Your task to perform on an android device: Add logitech g pro to the cart on newegg, then select checkout. Image 0: 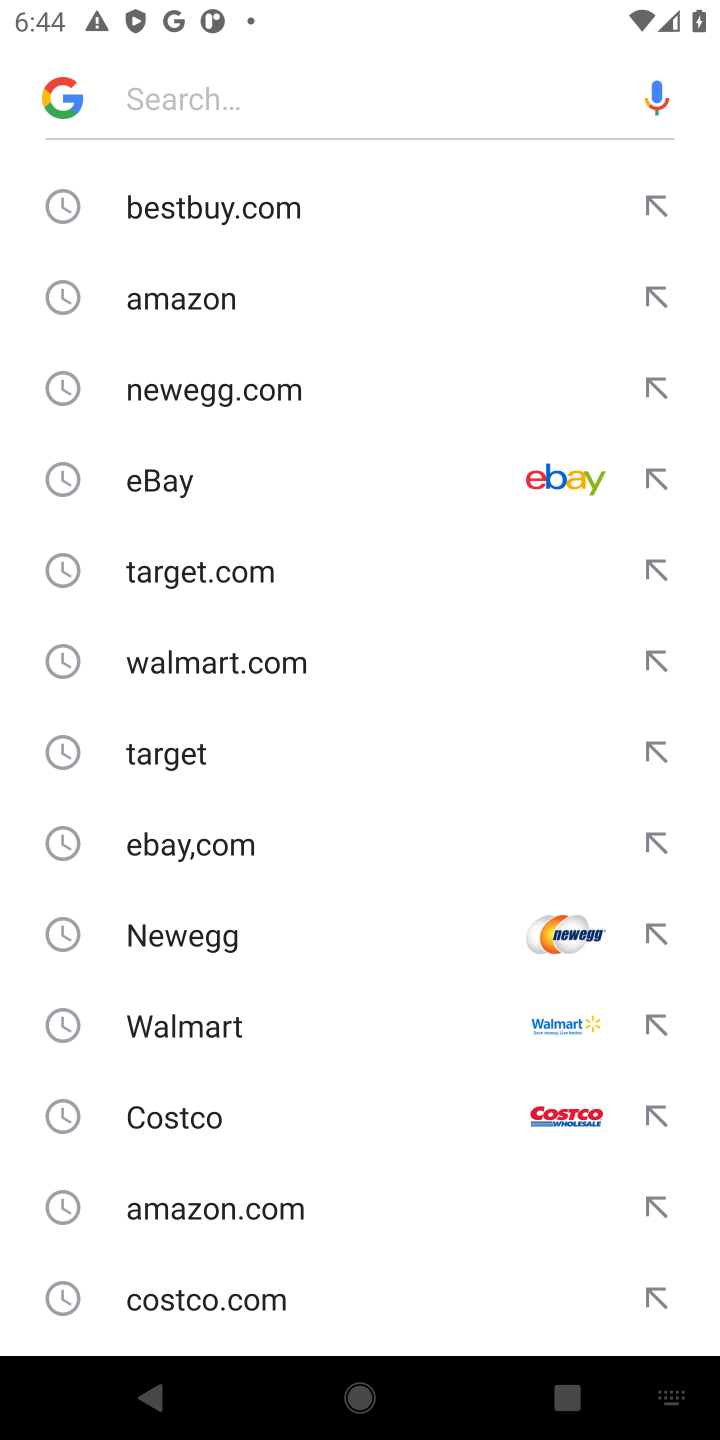
Step 0: click (311, 406)
Your task to perform on an android device: Add logitech g pro to the cart on newegg, then select checkout. Image 1: 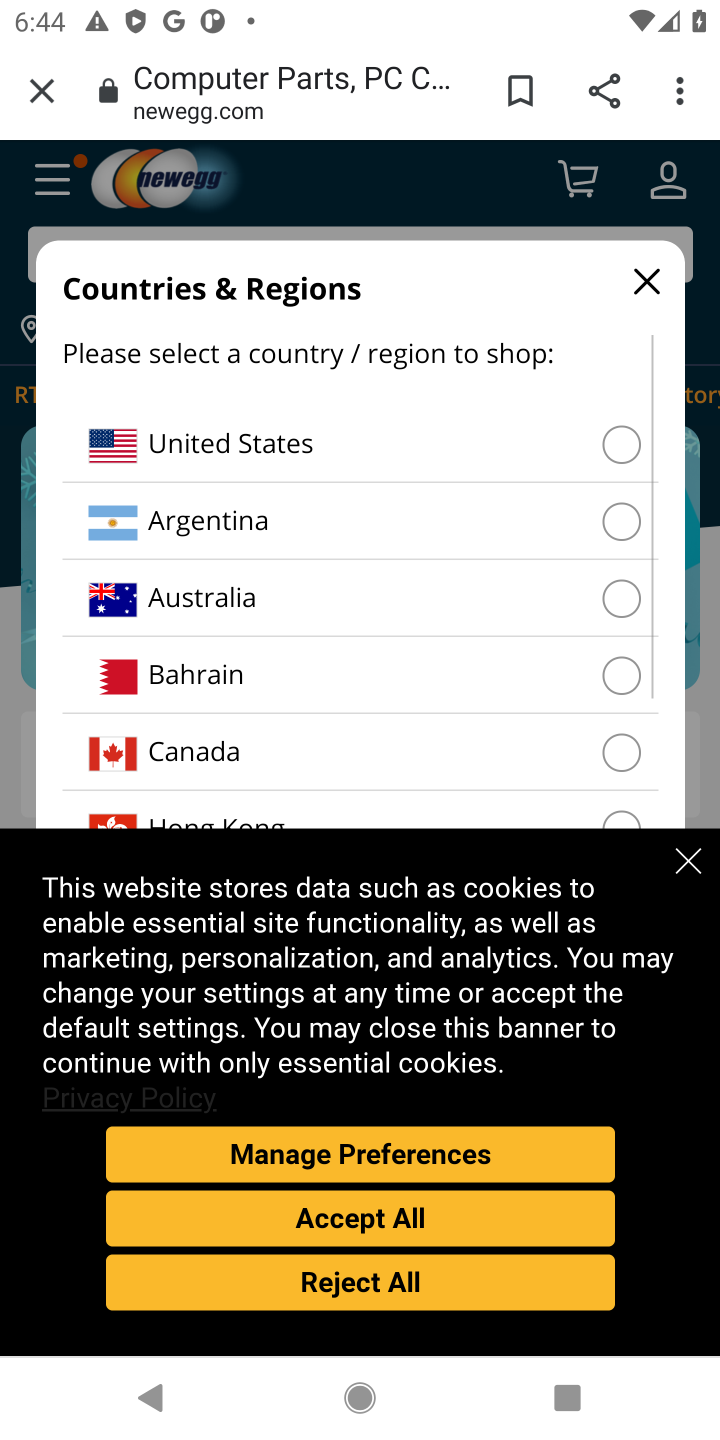
Step 1: click (294, 1219)
Your task to perform on an android device: Add logitech g pro to the cart on newegg, then select checkout. Image 2: 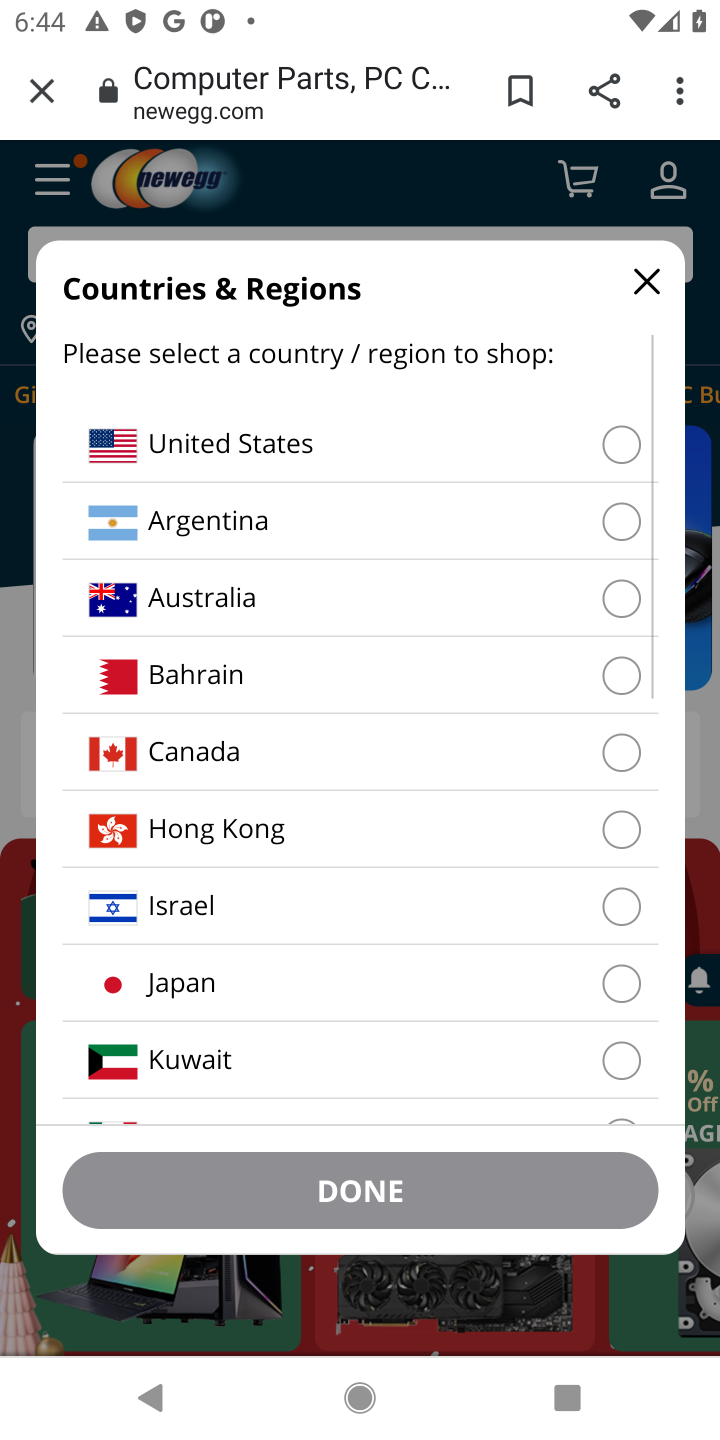
Step 2: click (630, 1047)
Your task to perform on an android device: Add logitech g pro to the cart on newegg, then select checkout. Image 3: 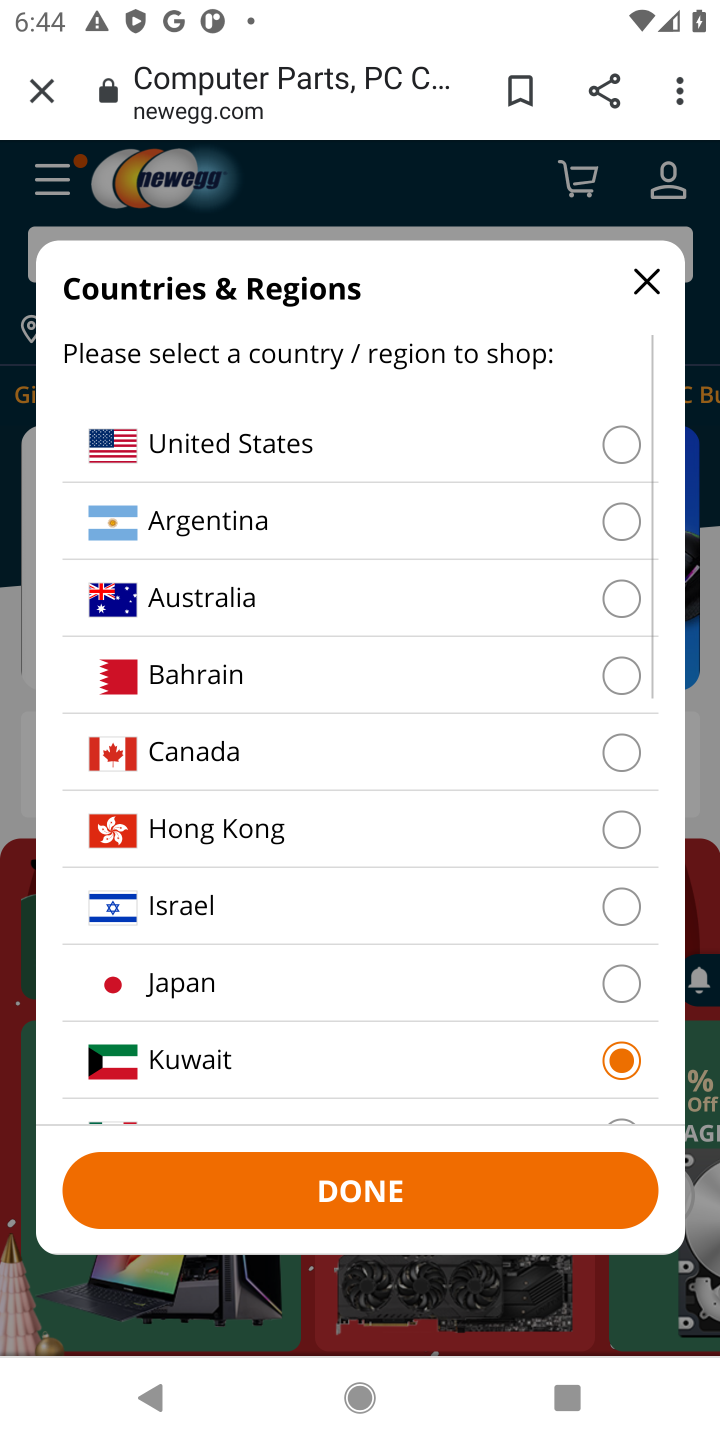
Step 3: click (508, 1169)
Your task to perform on an android device: Add logitech g pro to the cart on newegg, then select checkout. Image 4: 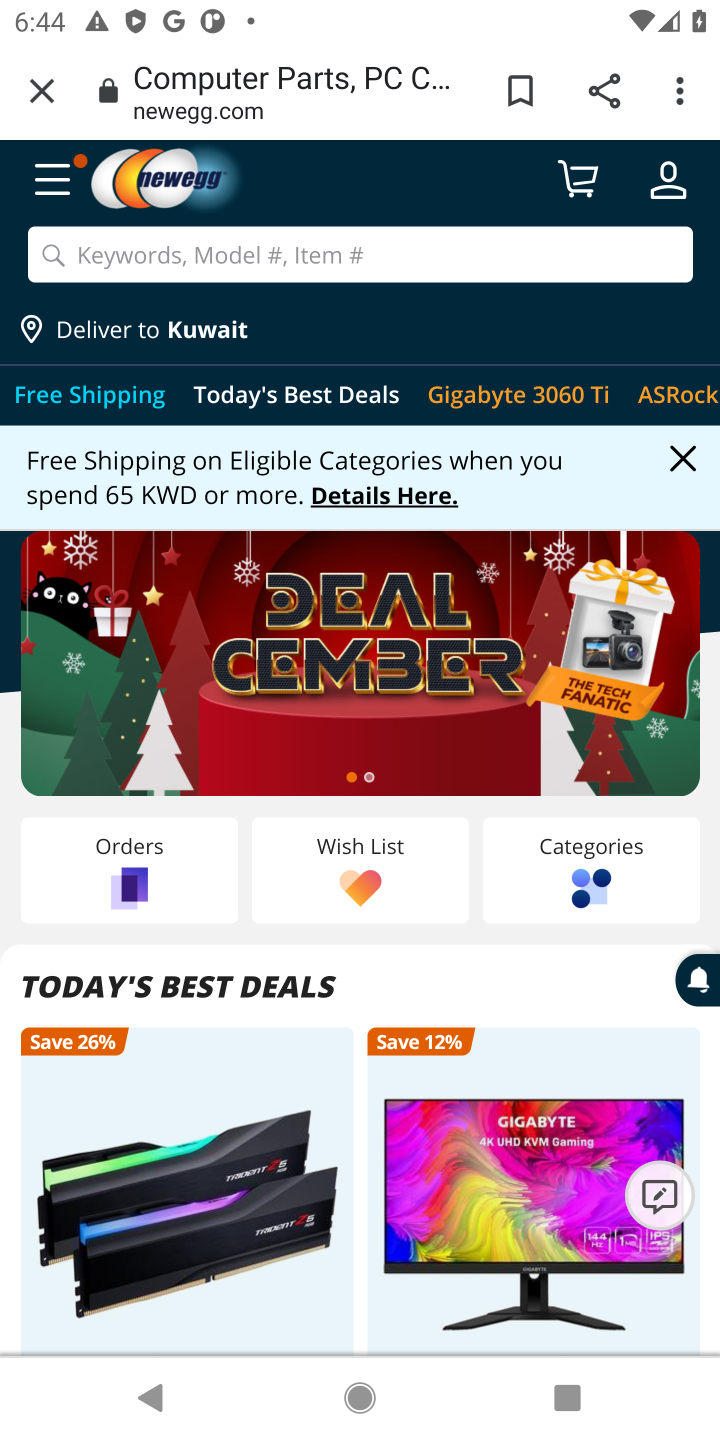
Step 4: click (331, 239)
Your task to perform on an android device: Add logitech g pro to the cart on newegg, then select checkout. Image 5: 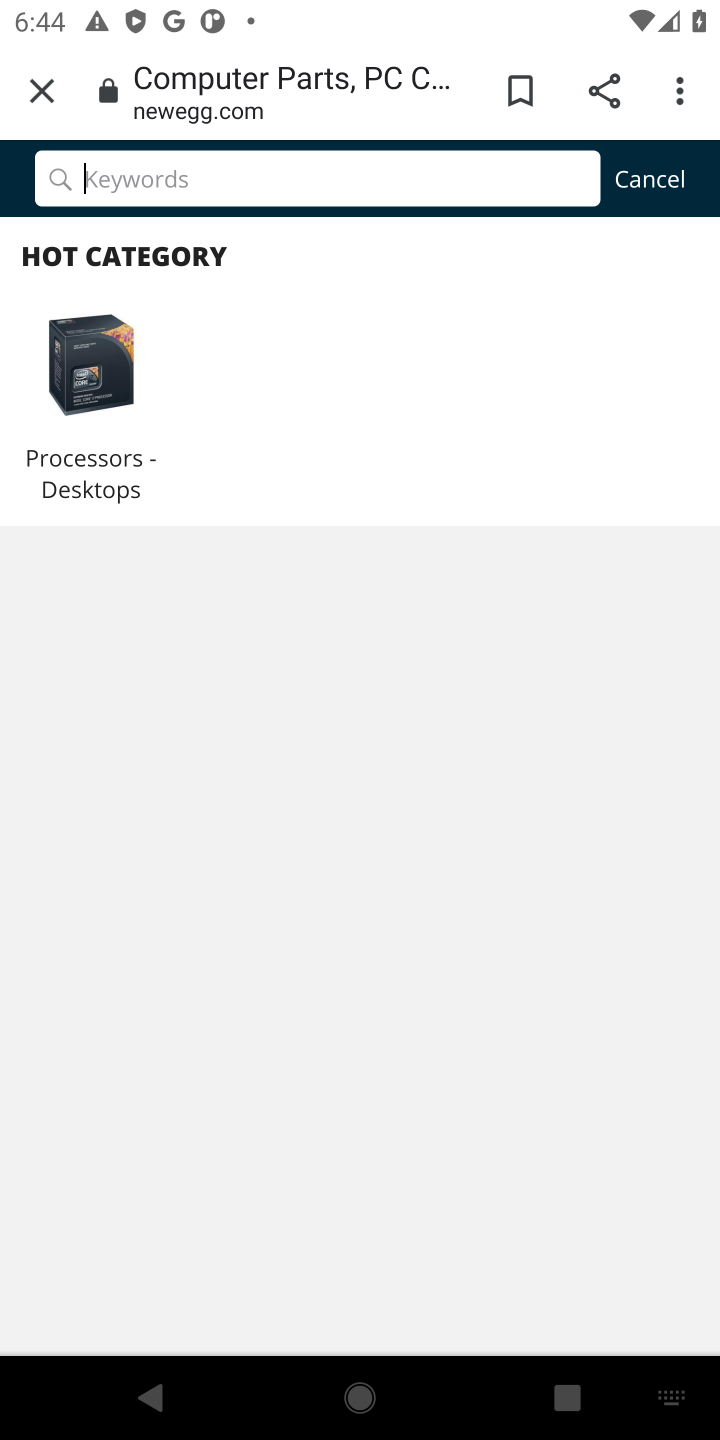
Step 5: click (332, 245)
Your task to perform on an android device: Add logitech g pro to the cart on newegg, then select checkout. Image 6: 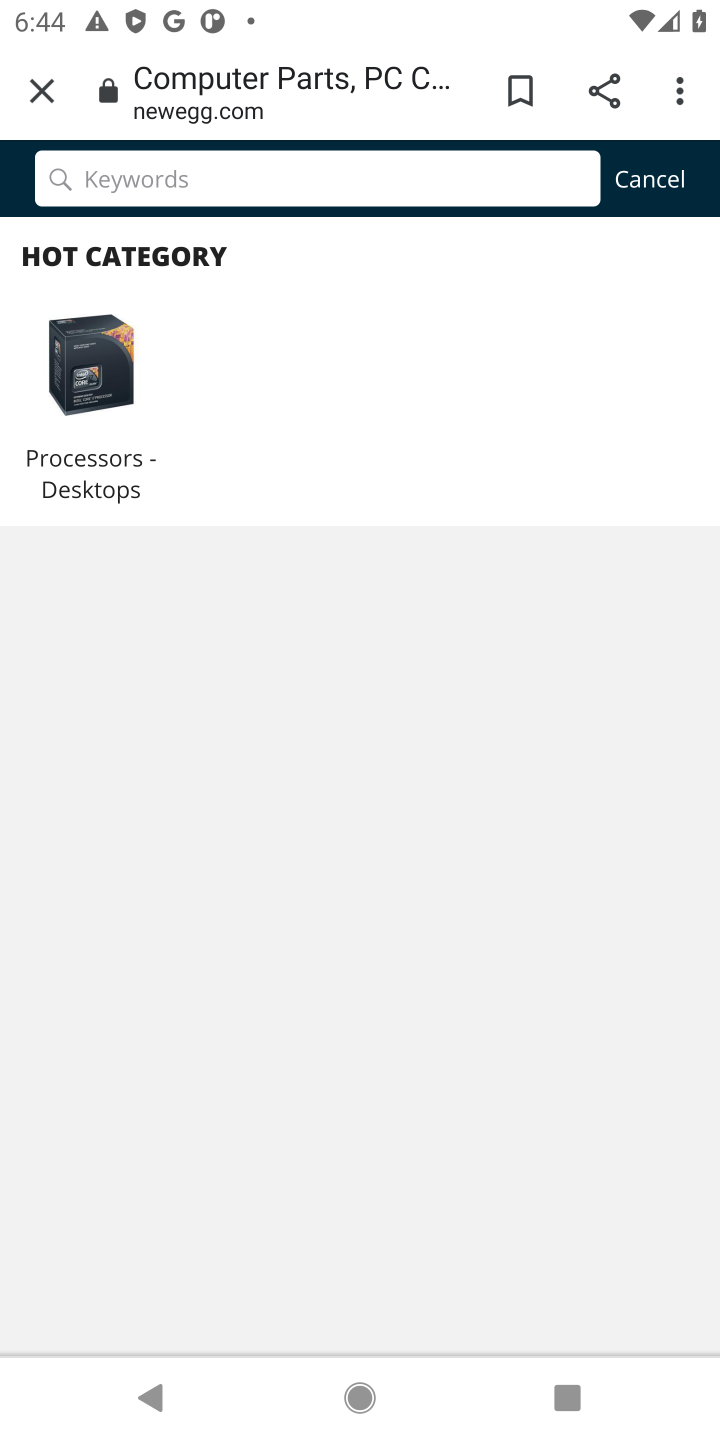
Step 6: type "logitech g pro "
Your task to perform on an android device: Add logitech g pro to the cart on newegg, then select checkout. Image 7: 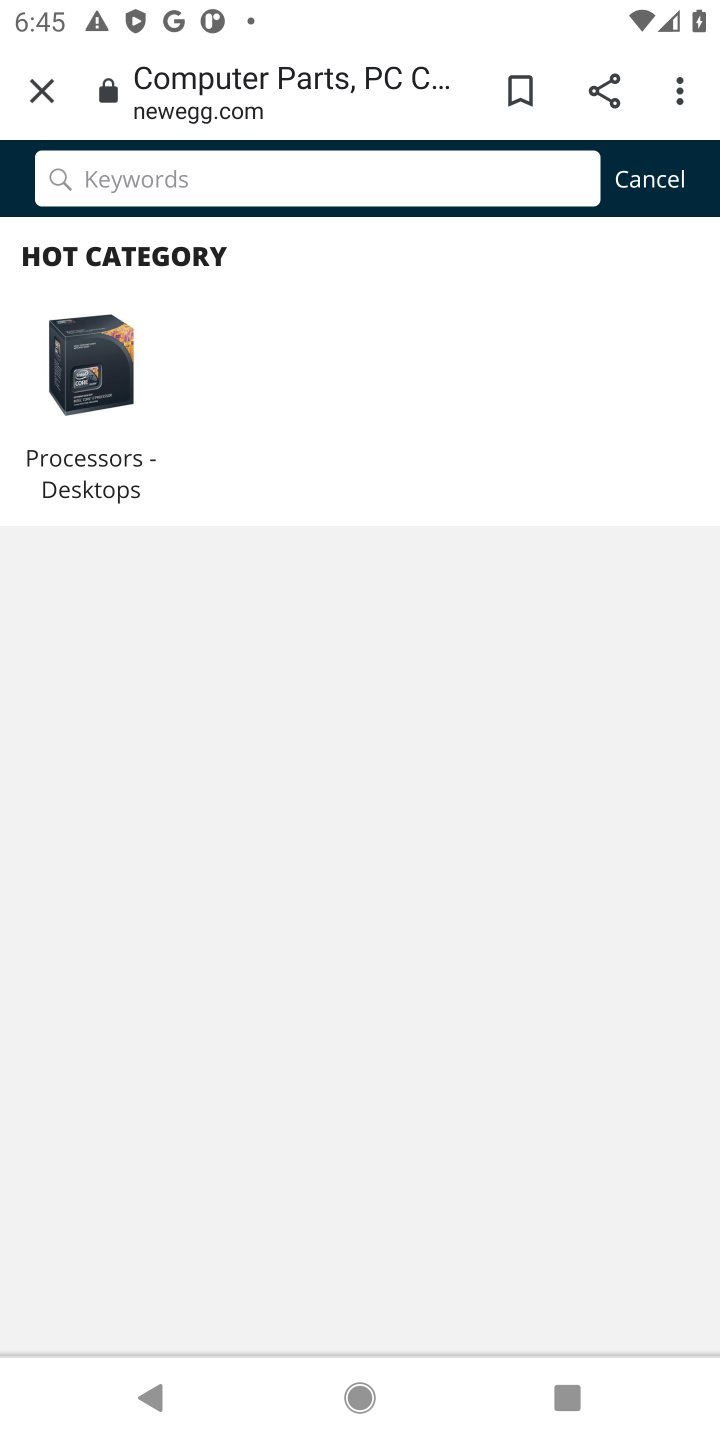
Step 7: click (510, 176)
Your task to perform on an android device: Add logitech g pro to the cart on newegg, then select checkout. Image 8: 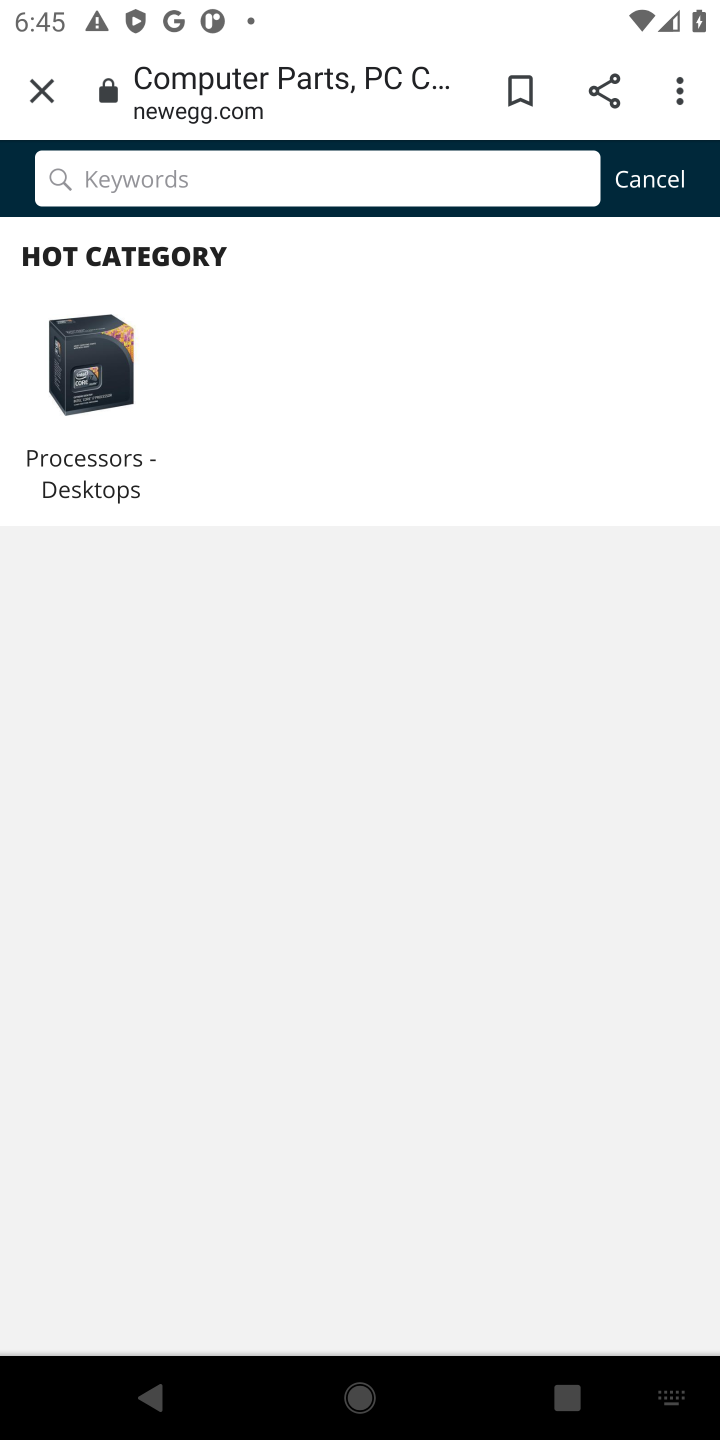
Step 8: type "logitech g pro "
Your task to perform on an android device: Add logitech g pro to the cart on newegg, then select checkout. Image 9: 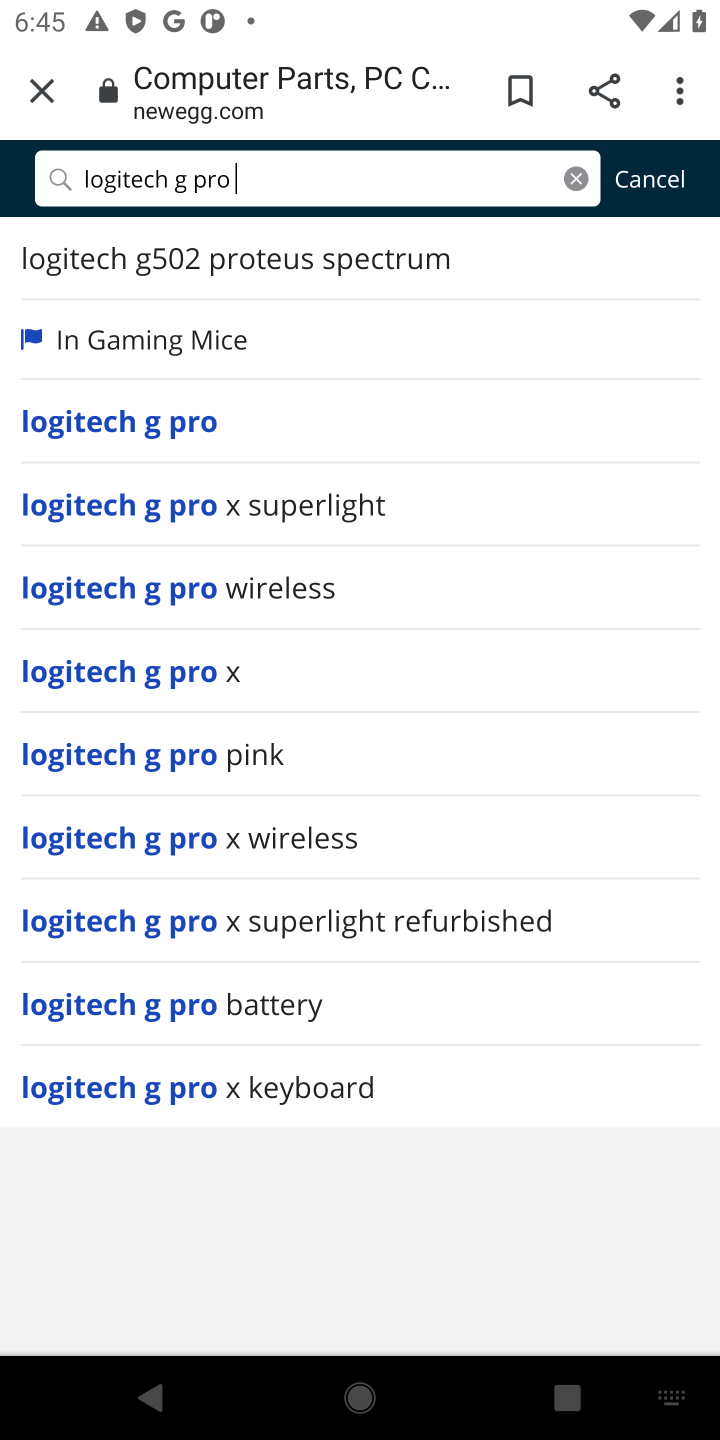
Step 9: click (317, 440)
Your task to perform on an android device: Add logitech g pro to the cart on newegg, then select checkout. Image 10: 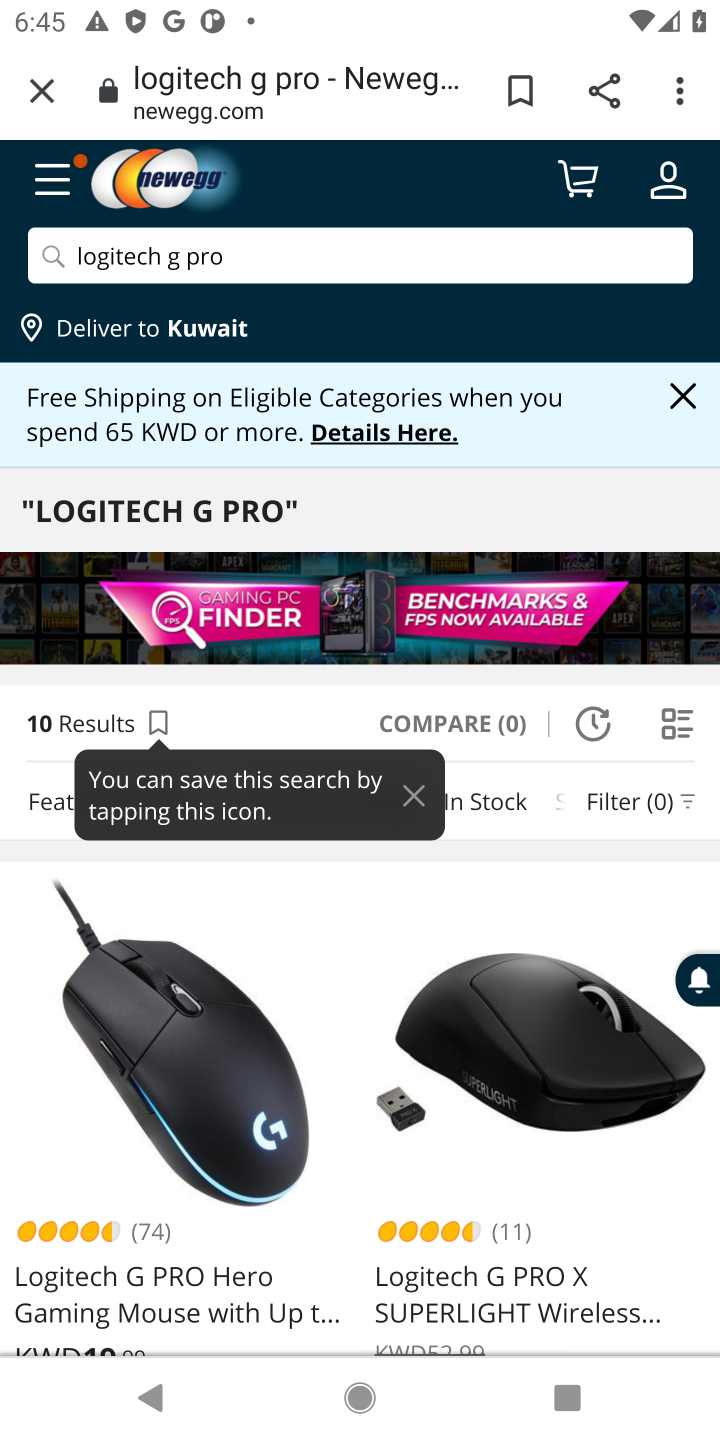
Step 10: click (158, 1289)
Your task to perform on an android device: Add logitech g pro to the cart on newegg, then select checkout. Image 11: 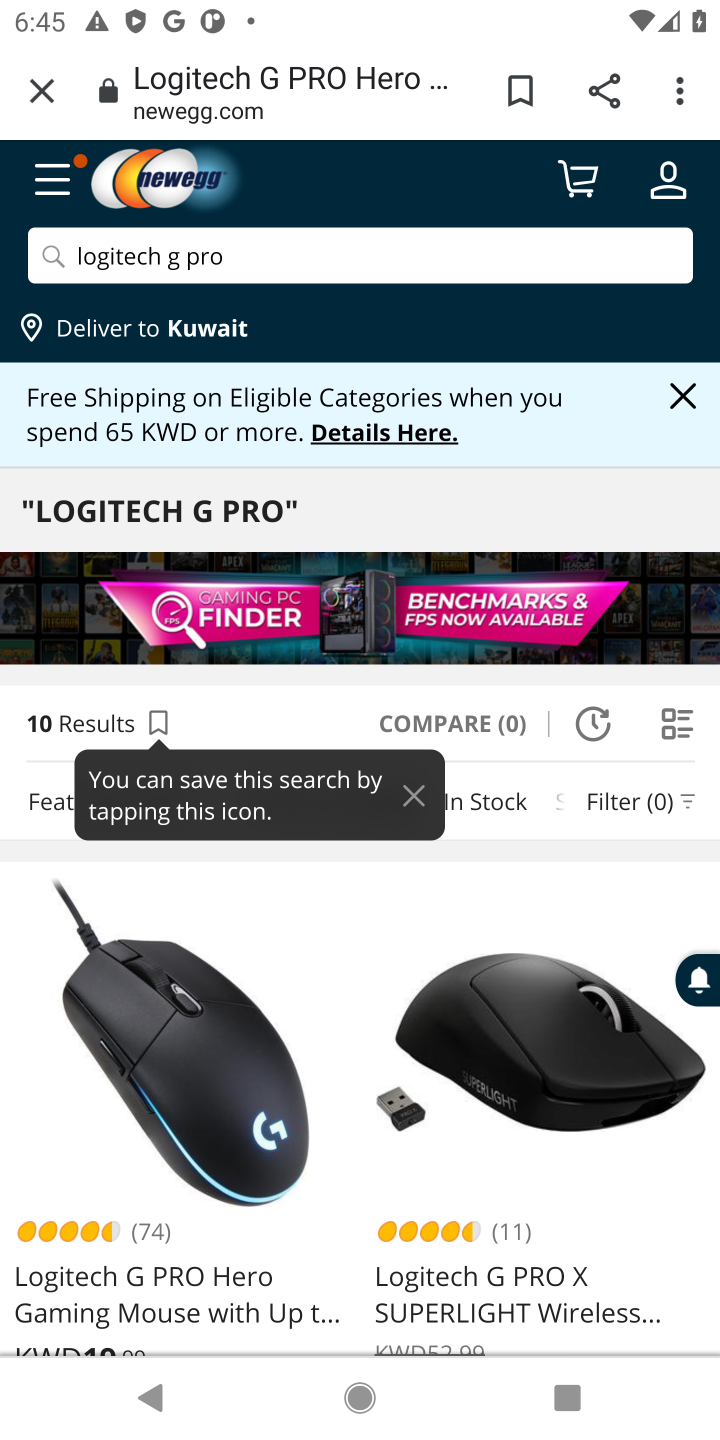
Step 11: click (158, 1289)
Your task to perform on an android device: Add logitech g pro to the cart on newegg, then select checkout. Image 12: 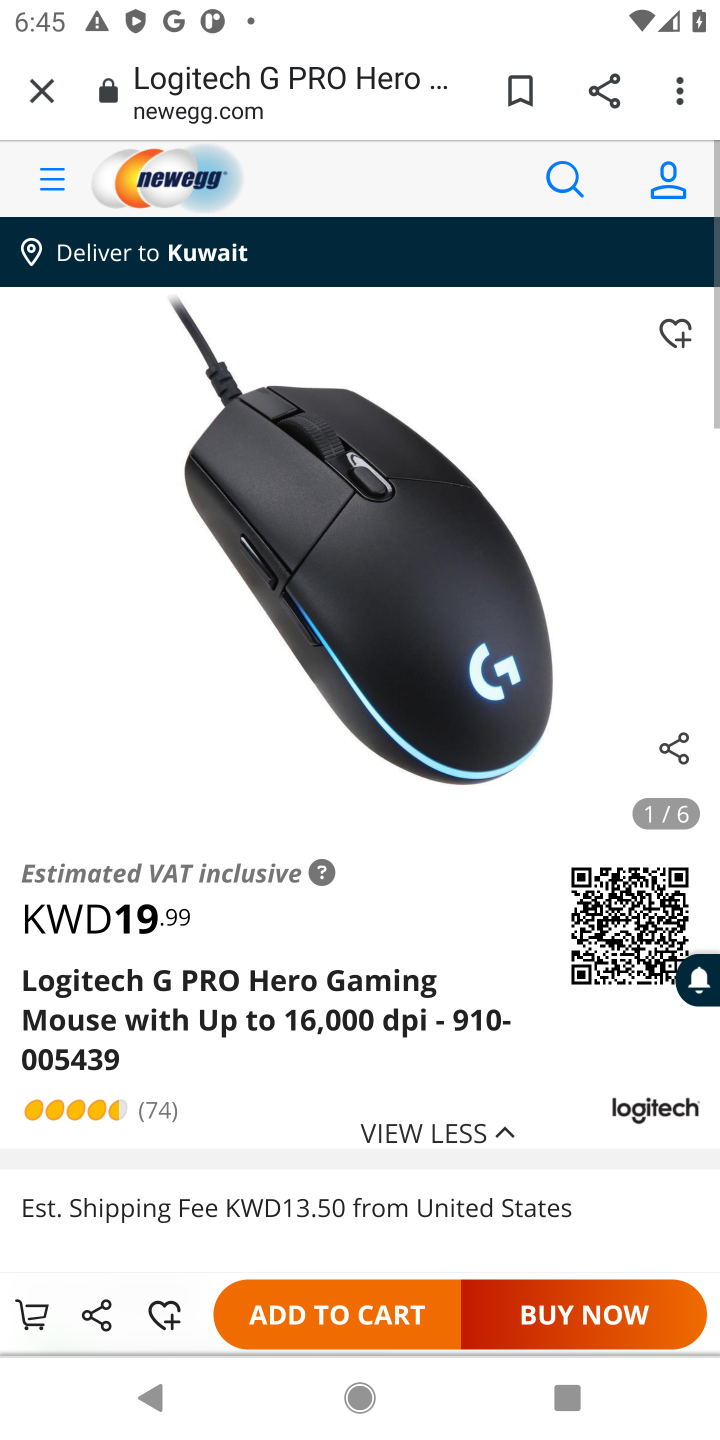
Step 12: click (158, 1289)
Your task to perform on an android device: Add logitech g pro to the cart on newegg, then select checkout. Image 13: 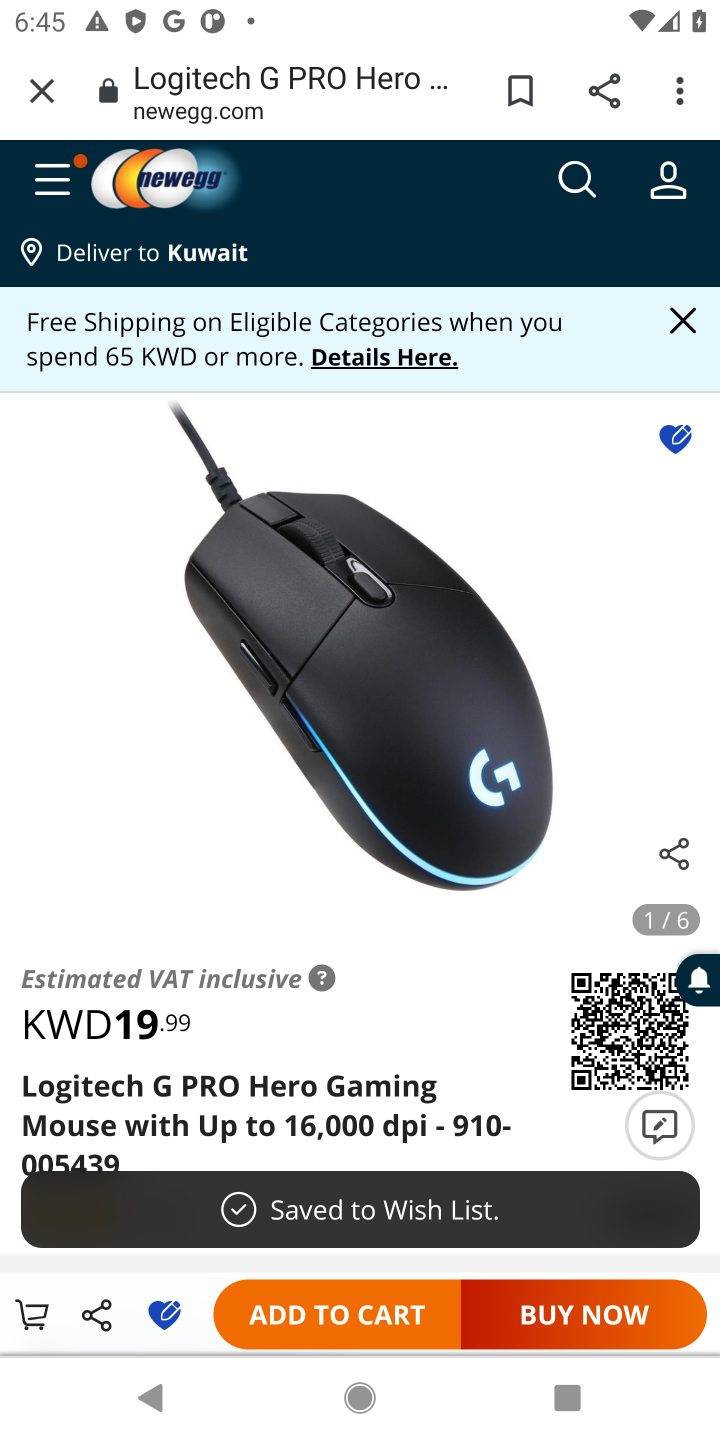
Step 13: click (342, 1319)
Your task to perform on an android device: Add logitech g pro to the cart on newegg, then select checkout. Image 14: 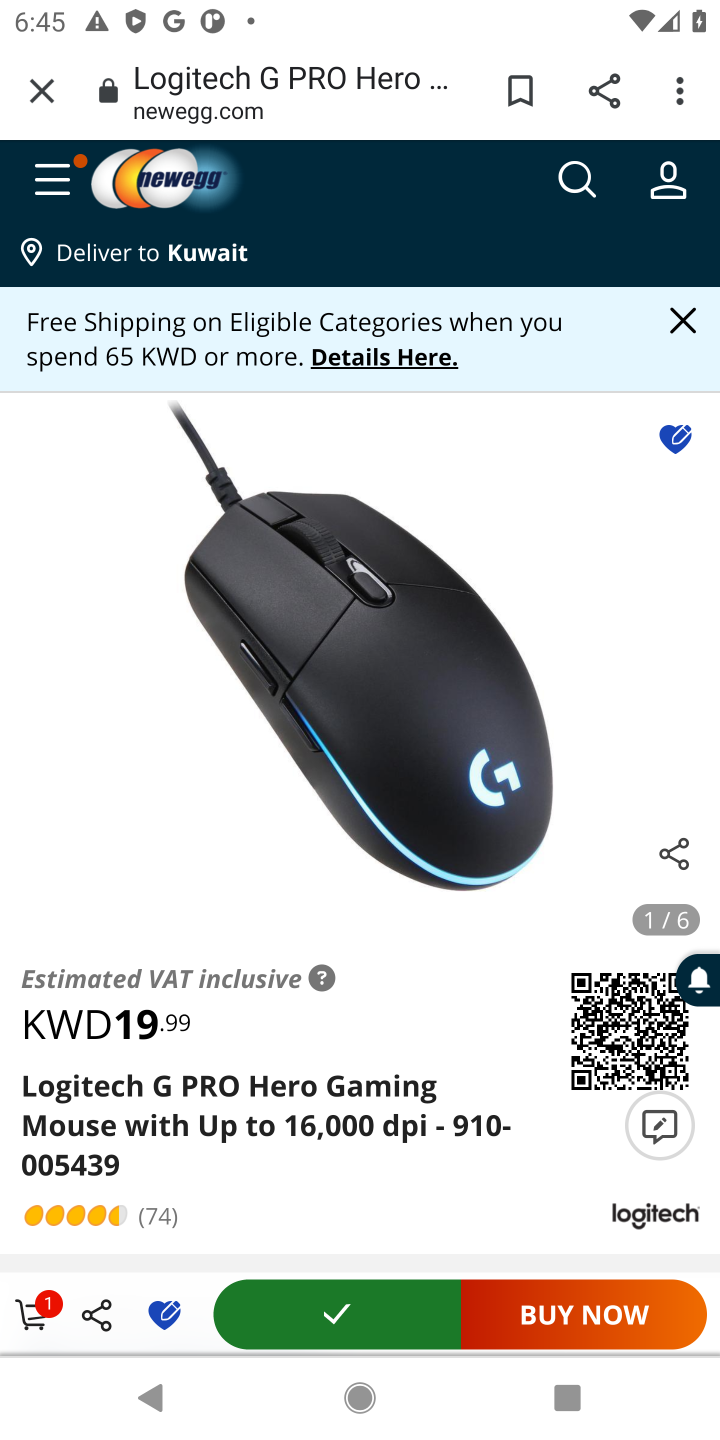
Step 14: click (30, 1312)
Your task to perform on an android device: Add logitech g pro to the cart on newegg, then select checkout. Image 15: 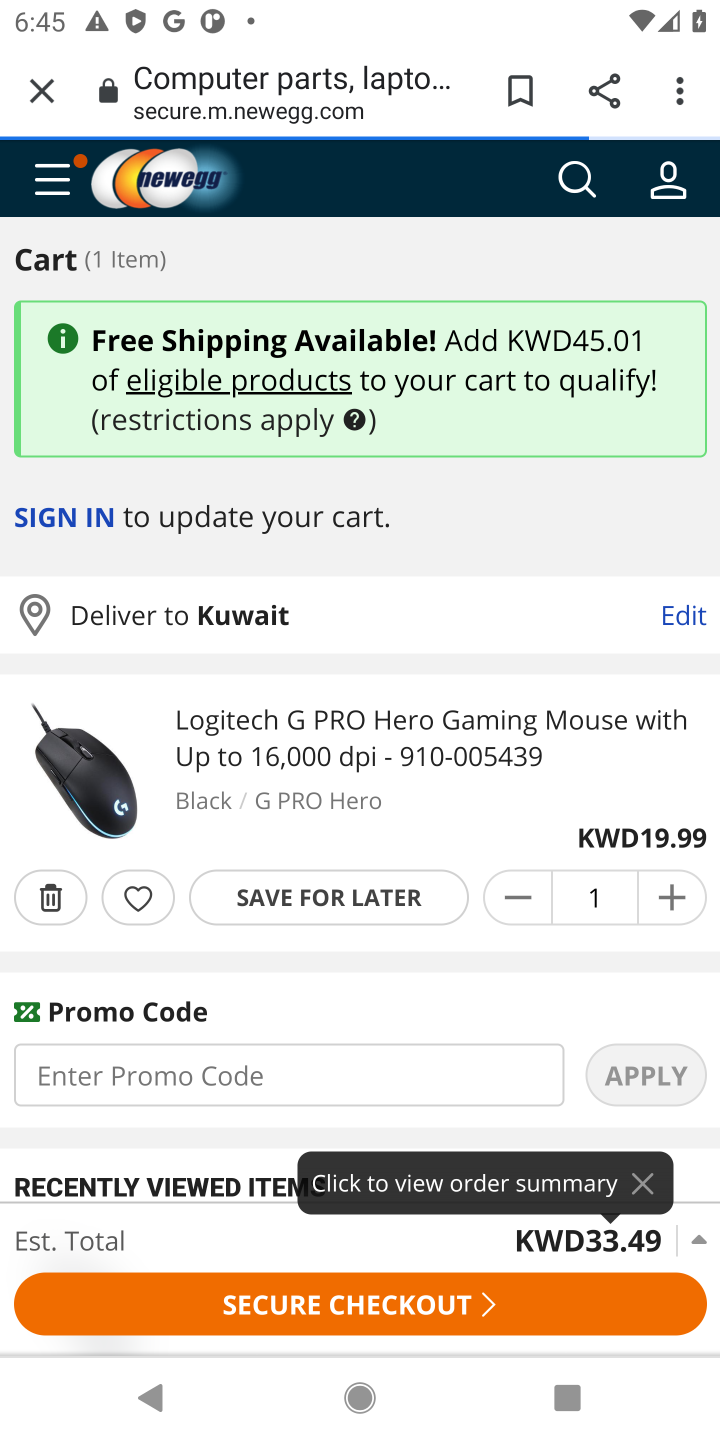
Step 15: click (280, 1297)
Your task to perform on an android device: Add logitech g pro to the cart on newegg, then select checkout. Image 16: 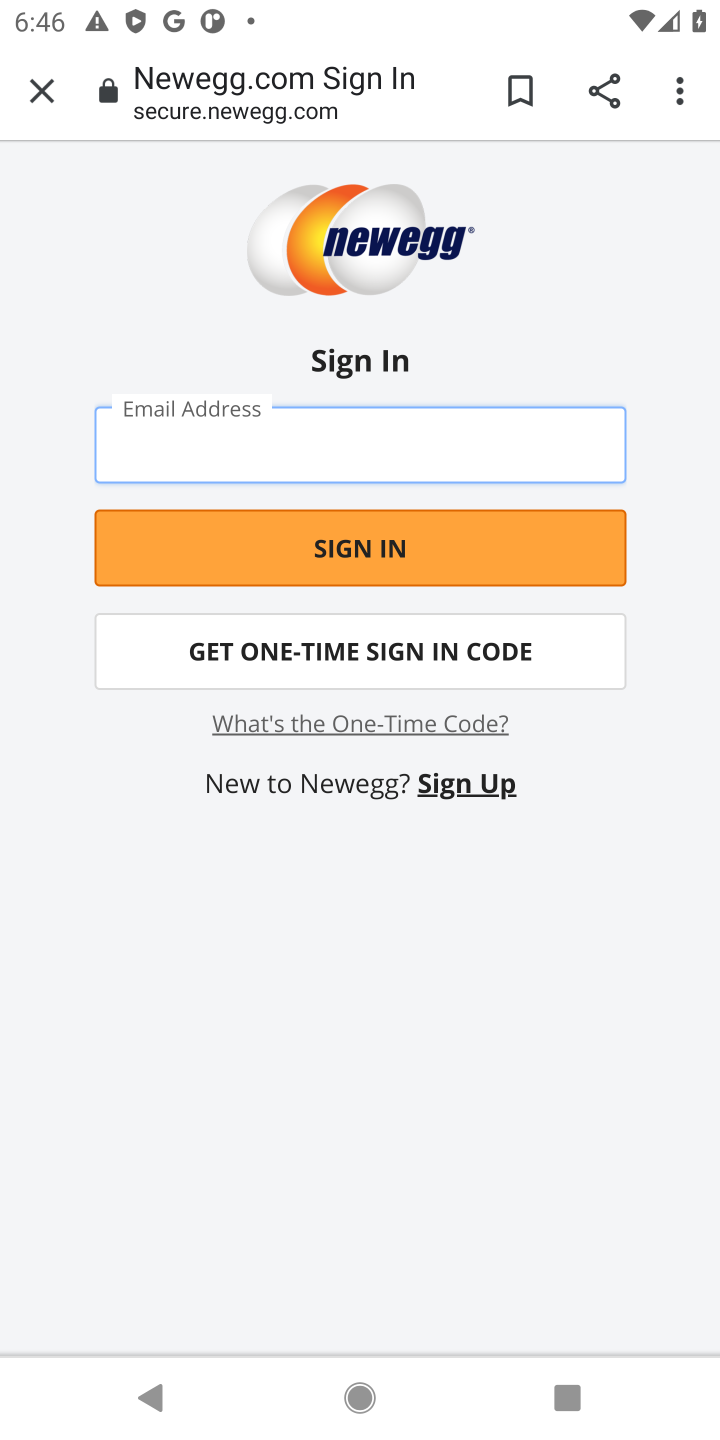
Step 16: task complete